Your task to perform on an android device: toggle notification dots Image 0: 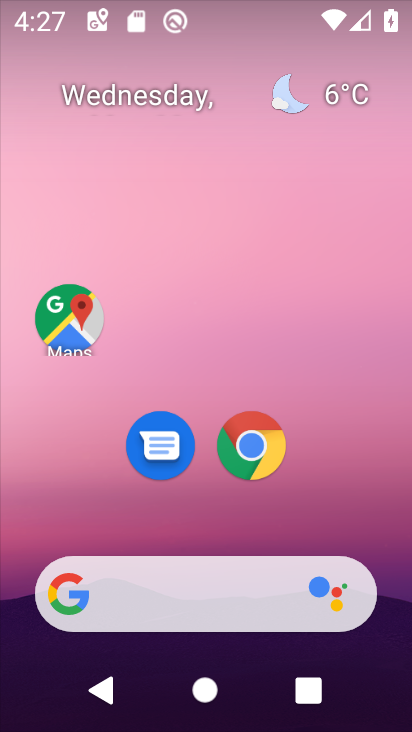
Step 0: drag from (227, 523) to (300, 9)
Your task to perform on an android device: toggle notification dots Image 1: 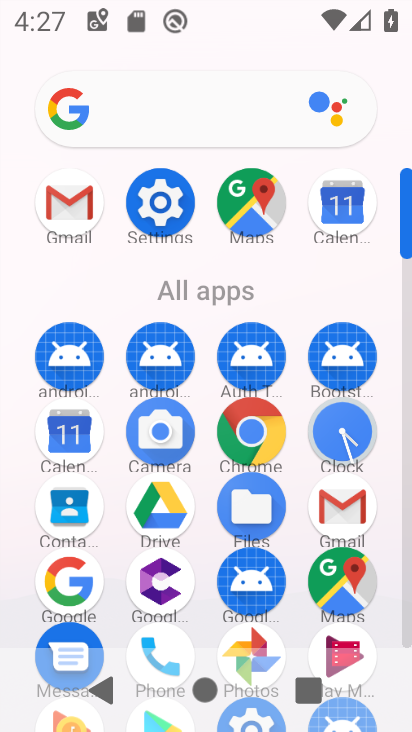
Step 1: click (169, 222)
Your task to perform on an android device: toggle notification dots Image 2: 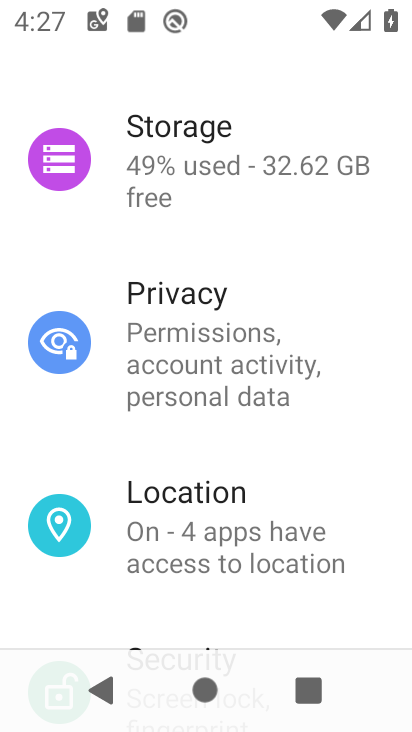
Step 2: drag from (245, 266) to (248, 559)
Your task to perform on an android device: toggle notification dots Image 3: 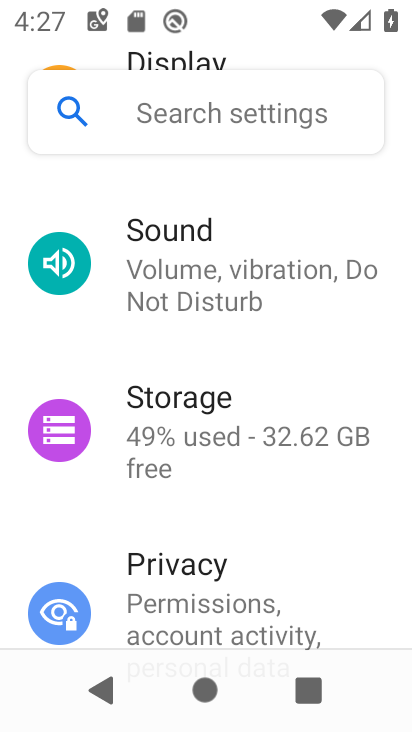
Step 3: drag from (221, 183) to (228, 499)
Your task to perform on an android device: toggle notification dots Image 4: 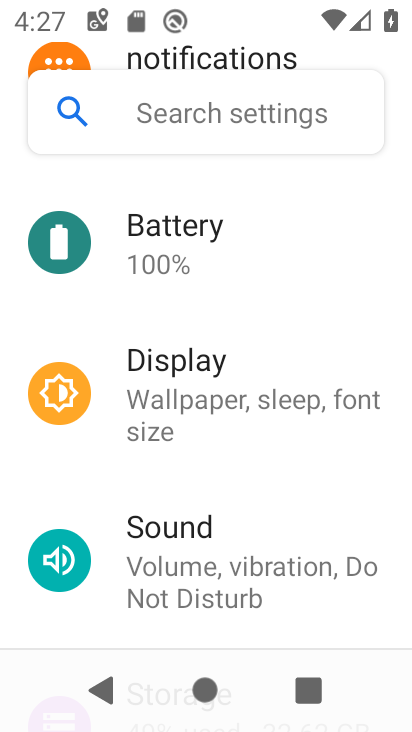
Step 4: drag from (237, 314) to (238, 542)
Your task to perform on an android device: toggle notification dots Image 5: 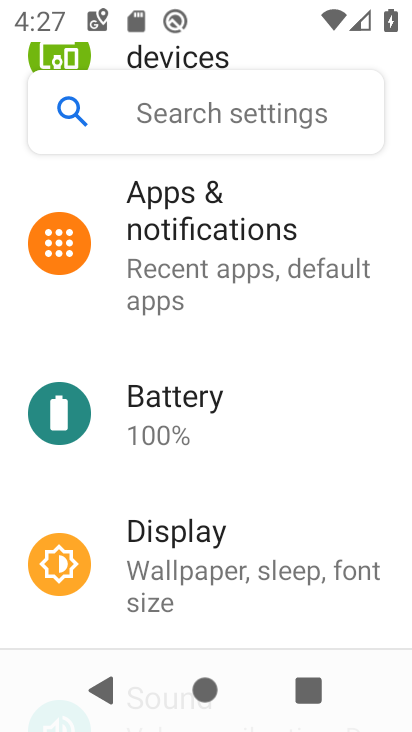
Step 5: drag from (258, 263) to (258, 466)
Your task to perform on an android device: toggle notification dots Image 6: 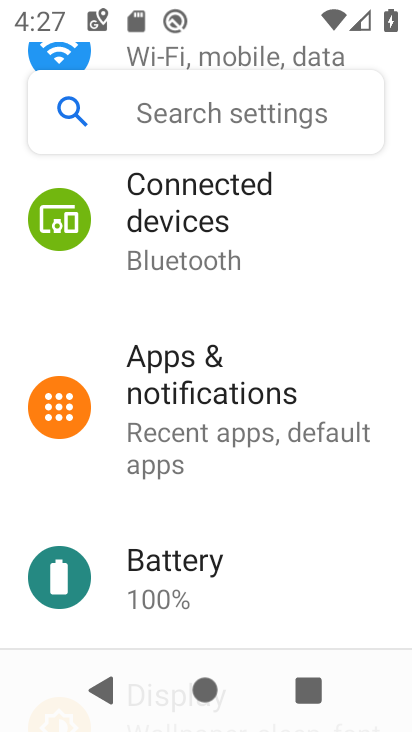
Step 6: click (230, 423)
Your task to perform on an android device: toggle notification dots Image 7: 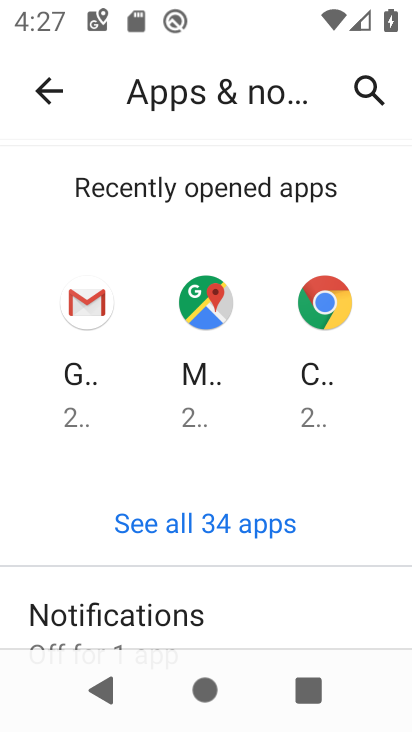
Step 7: drag from (201, 564) to (272, 272)
Your task to perform on an android device: toggle notification dots Image 8: 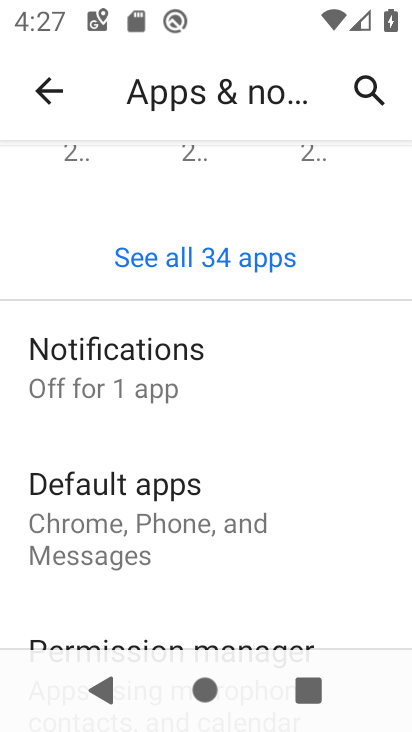
Step 8: click (140, 415)
Your task to perform on an android device: toggle notification dots Image 9: 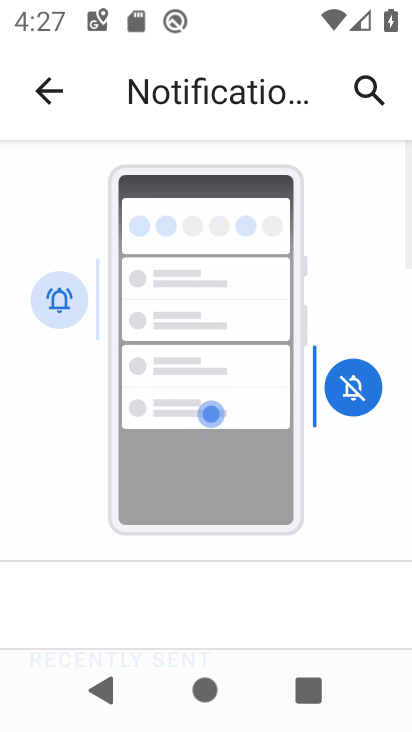
Step 9: drag from (252, 567) to (336, 202)
Your task to perform on an android device: toggle notification dots Image 10: 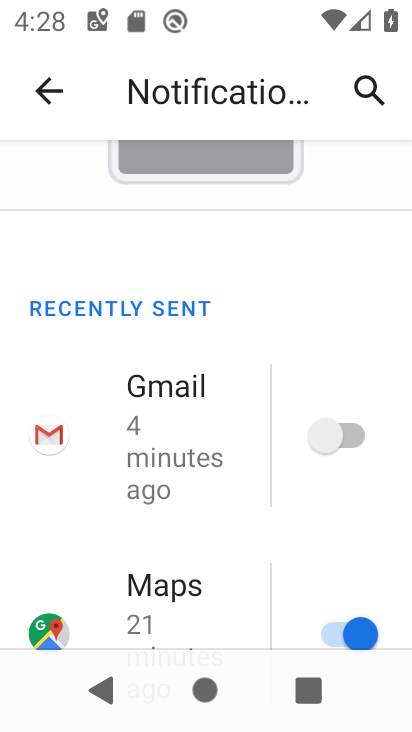
Step 10: drag from (202, 531) to (243, 282)
Your task to perform on an android device: toggle notification dots Image 11: 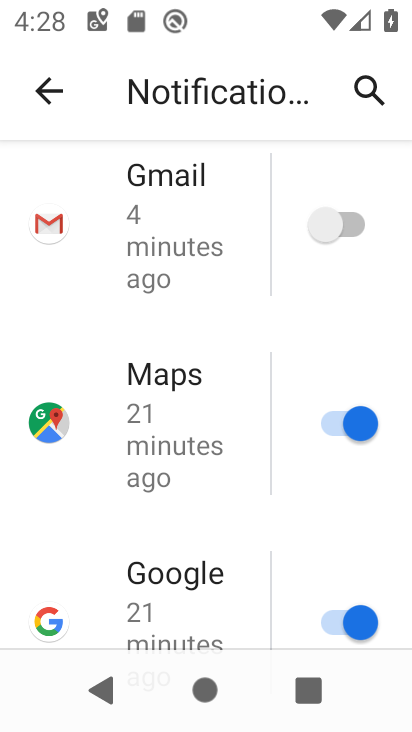
Step 11: drag from (193, 513) to (242, 67)
Your task to perform on an android device: toggle notification dots Image 12: 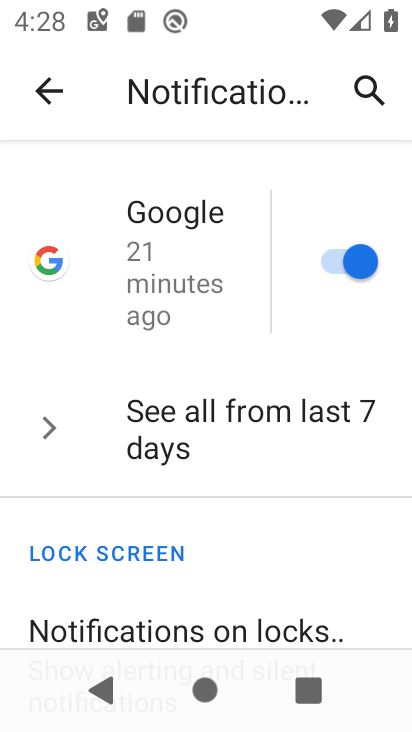
Step 12: drag from (227, 564) to (266, 282)
Your task to perform on an android device: toggle notification dots Image 13: 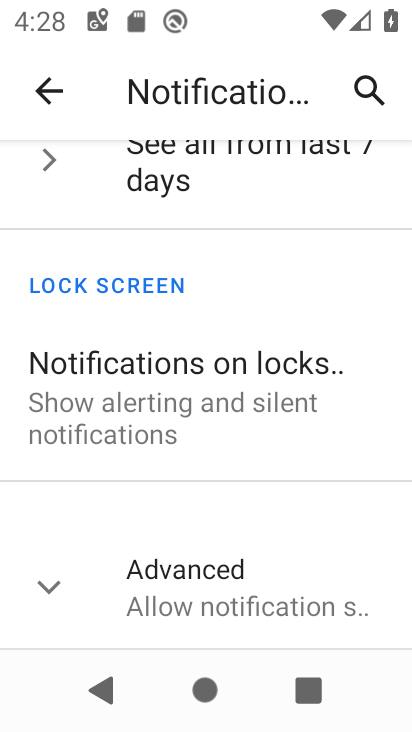
Step 13: click (209, 587)
Your task to perform on an android device: toggle notification dots Image 14: 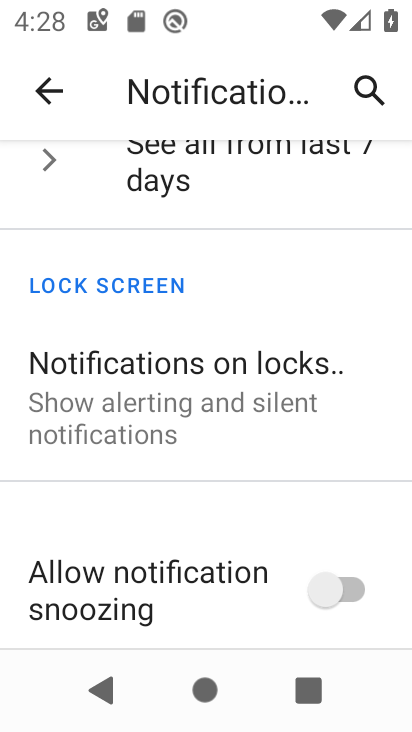
Step 14: drag from (250, 590) to (303, 356)
Your task to perform on an android device: toggle notification dots Image 15: 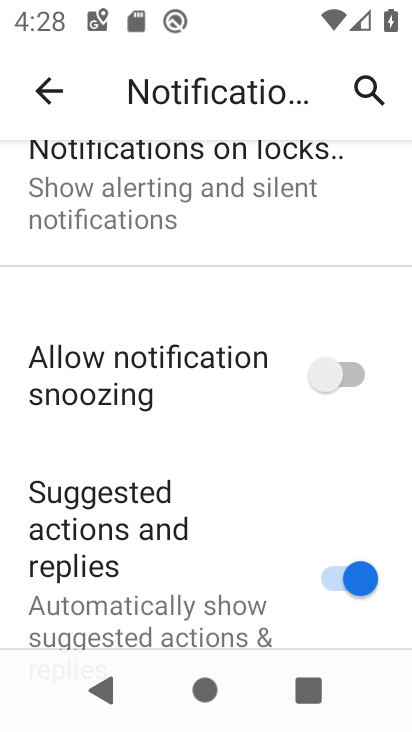
Step 15: drag from (278, 543) to (307, 368)
Your task to perform on an android device: toggle notification dots Image 16: 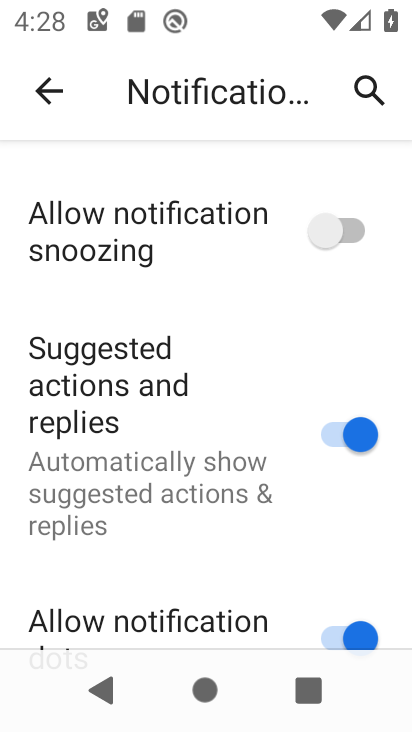
Step 16: drag from (186, 535) to (203, 171)
Your task to perform on an android device: toggle notification dots Image 17: 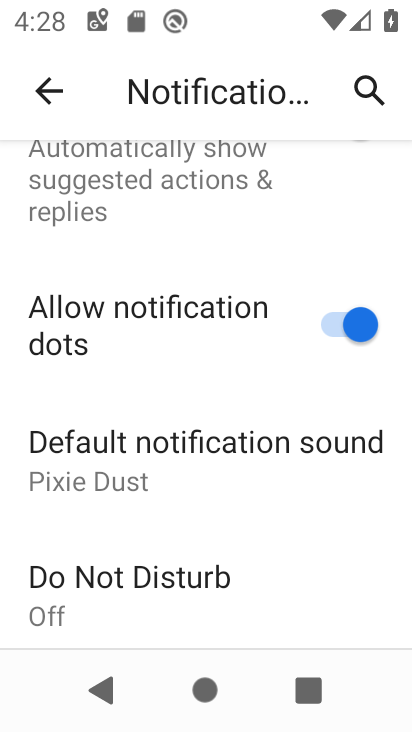
Step 17: click (311, 321)
Your task to perform on an android device: toggle notification dots Image 18: 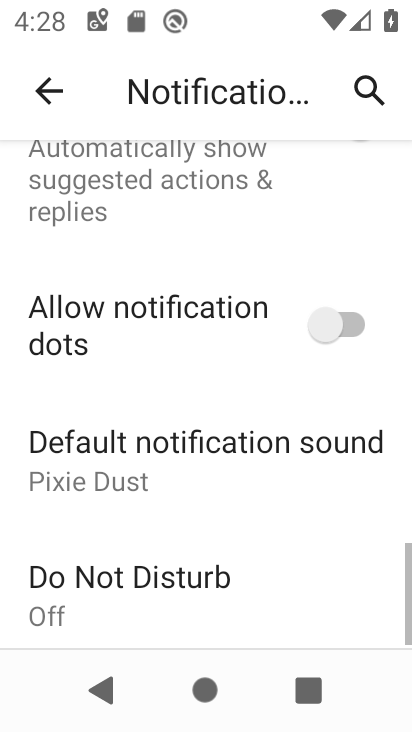
Step 18: task complete